Your task to perform on an android device: remove spam from my inbox in the gmail app Image 0: 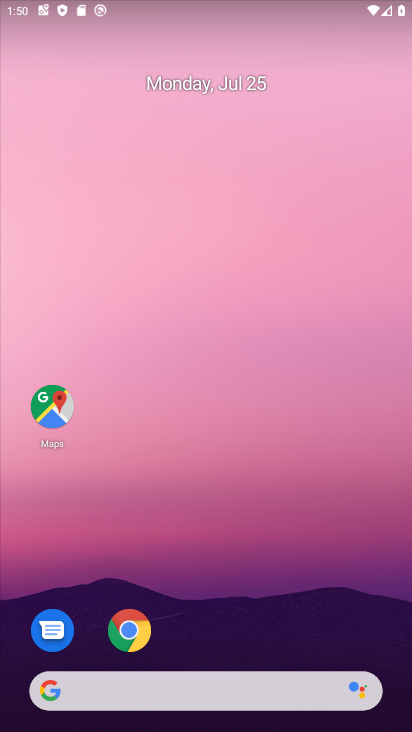
Step 0: drag from (230, 638) to (205, 38)
Your task to perform on an android device: remove spam from my inbox in the gmail app Image 1: 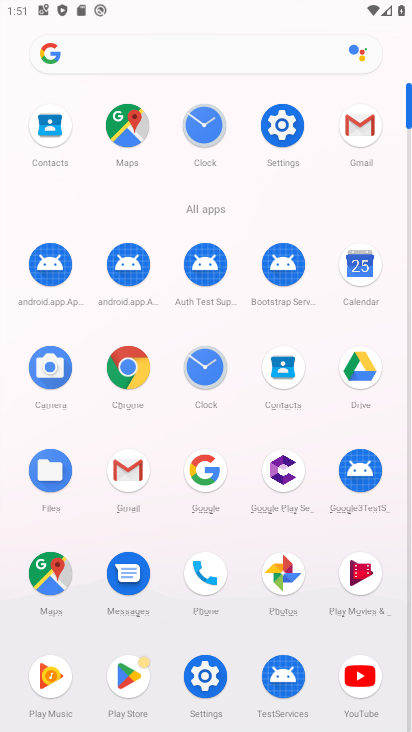
Step 1: click (340, 143)
Your task to perform on an android device: remove spam from my inbox in the gmail app Image 2: 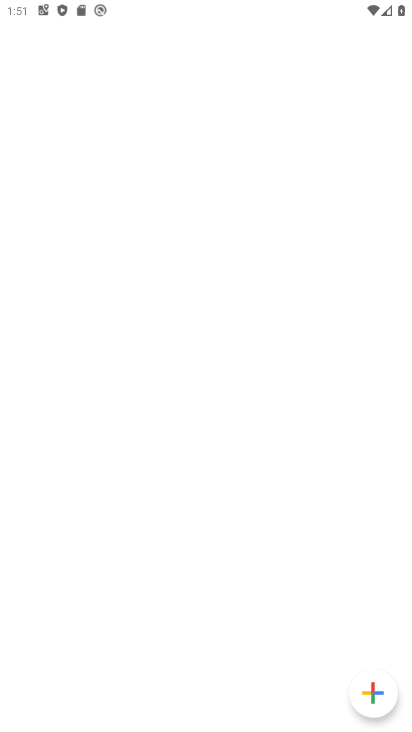
Step 2: task complete